Your task to perform on an android device: turn off javascript in the chrome app Image 0: 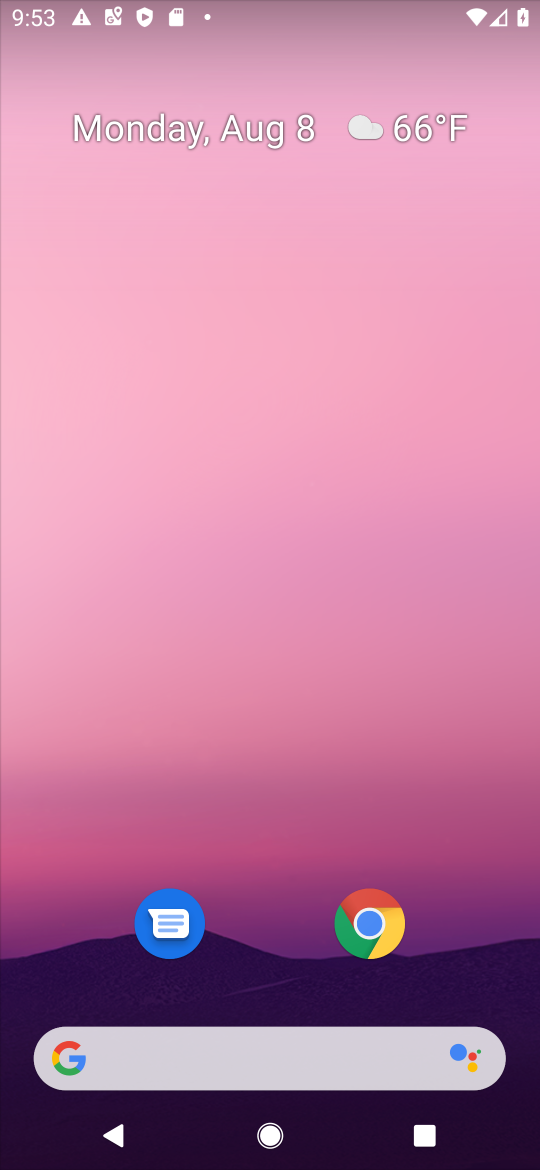
Step 0: press home button
Your task to perform on an android device: turn off javascript in the chrome app Image 1: 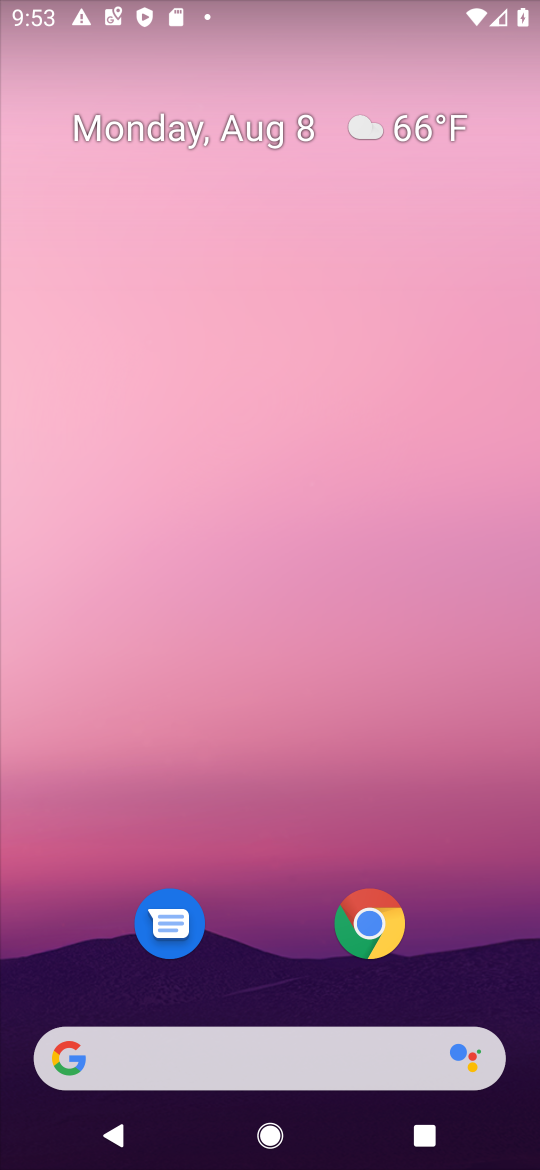
Step 1: click (362, 926)
Your task to perform on an android device: turn off javascript in the chrome app Image 2: 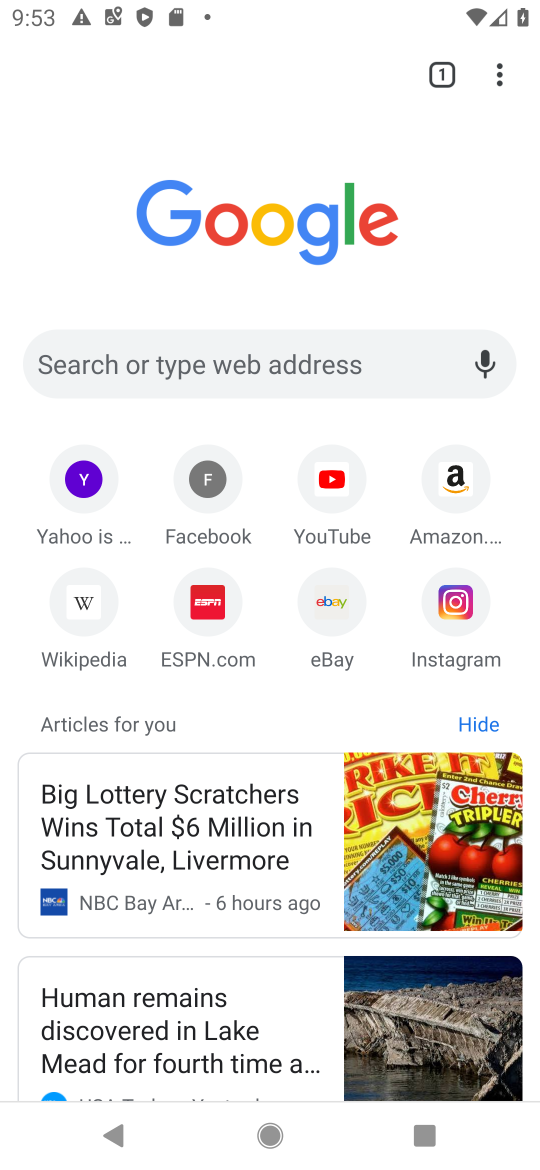
Step 2: click (507, 72)
Your task to perform on an android device: turn off javascript in the chrome app Image 3: 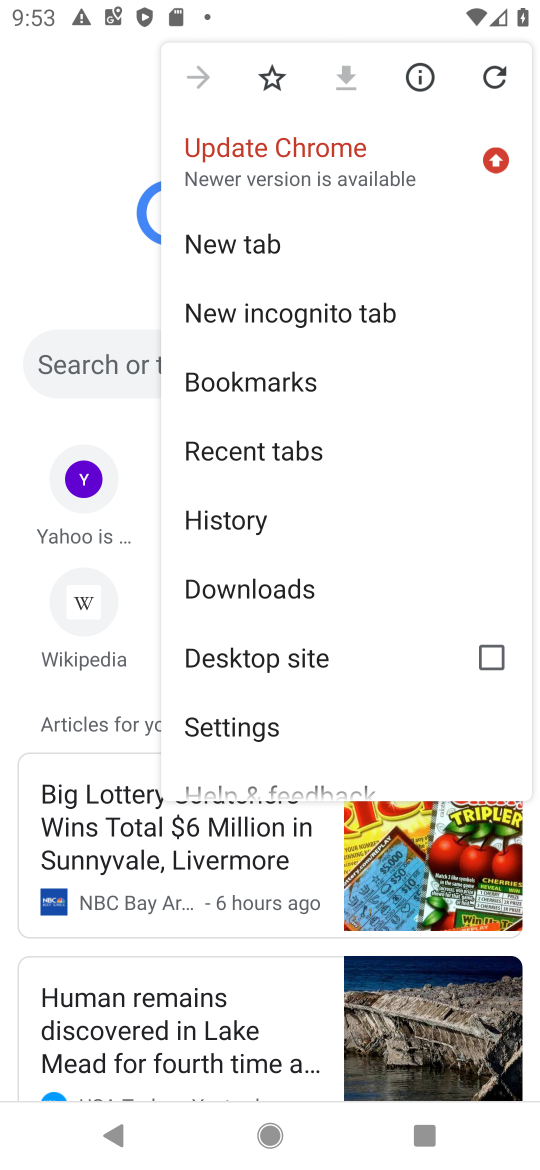
Step 3: click (216, 725)
Your task to perform on an android device: turn off javascript in the chrome app Image 4: 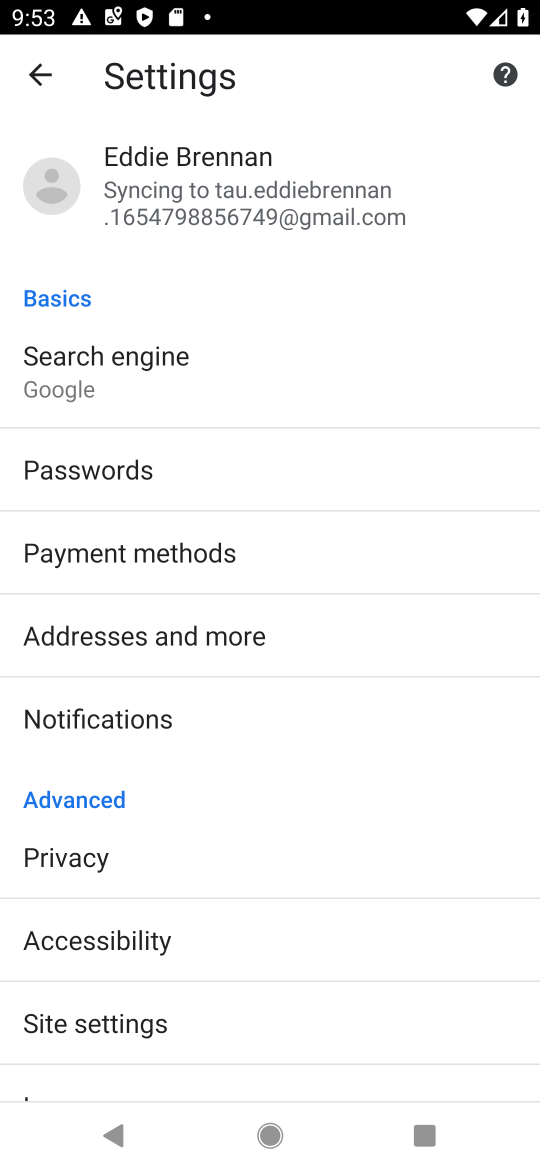
Step 4: click (78, 1020)
Your task to perform on an android device: turn off javascript in the chrome app Image 5: 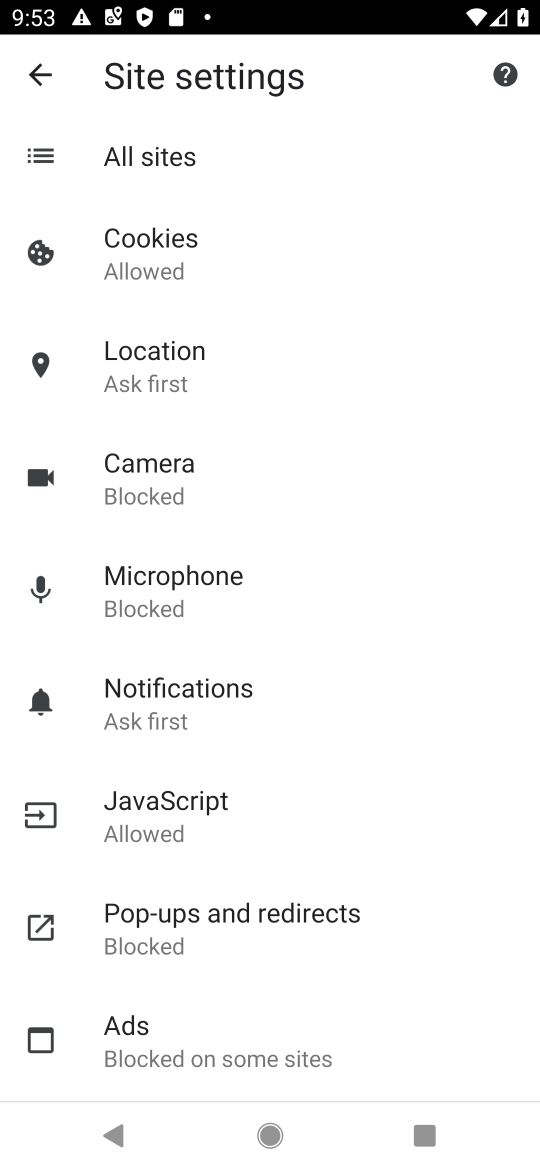
Step 5: click (159, 834)
Your task to perform on an android device: turn off javascript in the chrome app Image 6: 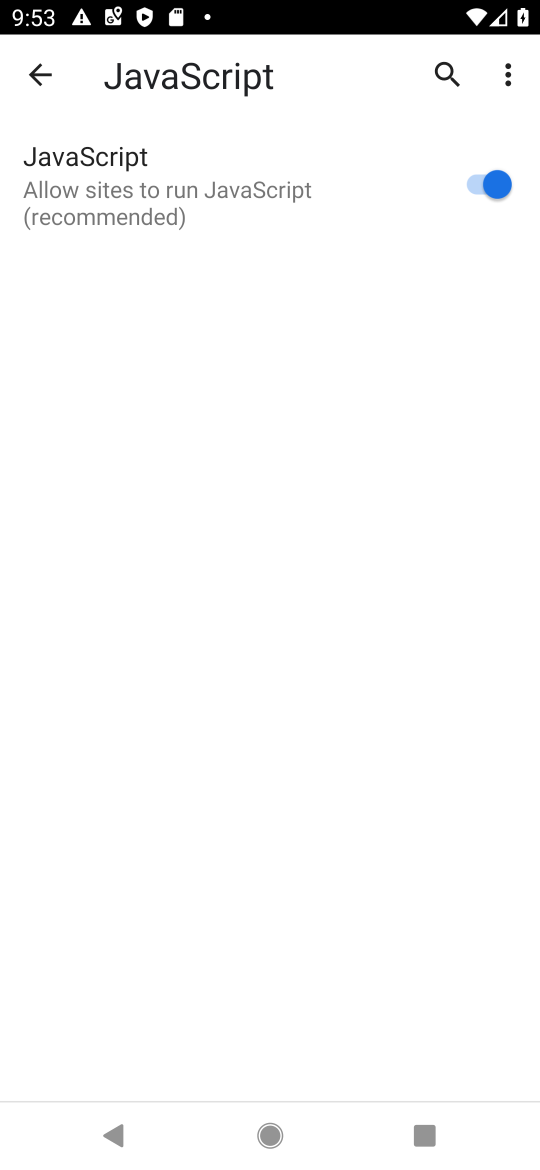
Step 6: task complete